Your task to perform on an android device: open app "Speedtest by Ookla" Image 0: 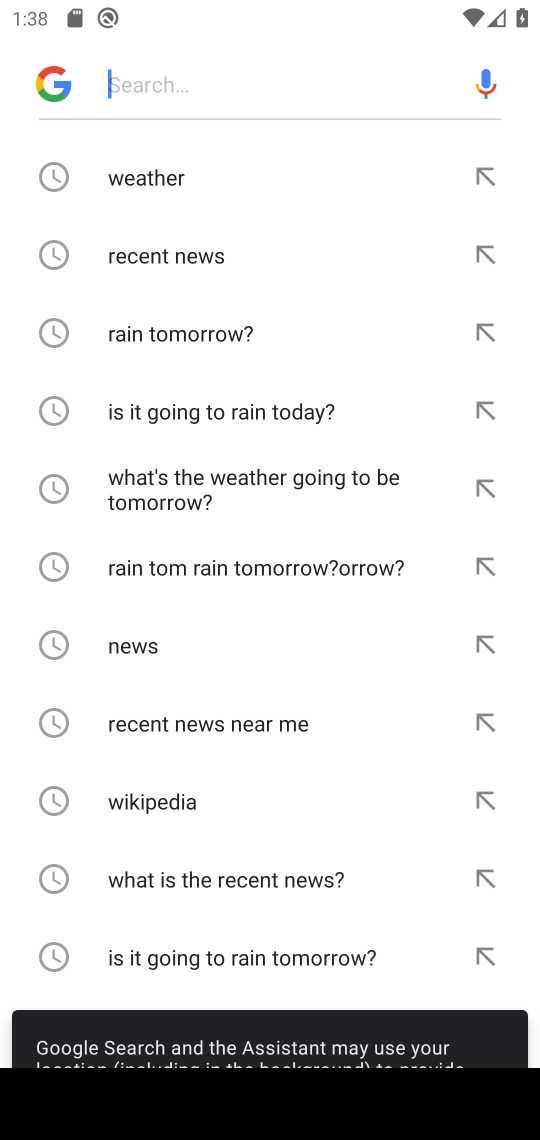
Step 0: press home button
Your task to perform on an android device: open app "Speedtest by Ookla" Image 1: 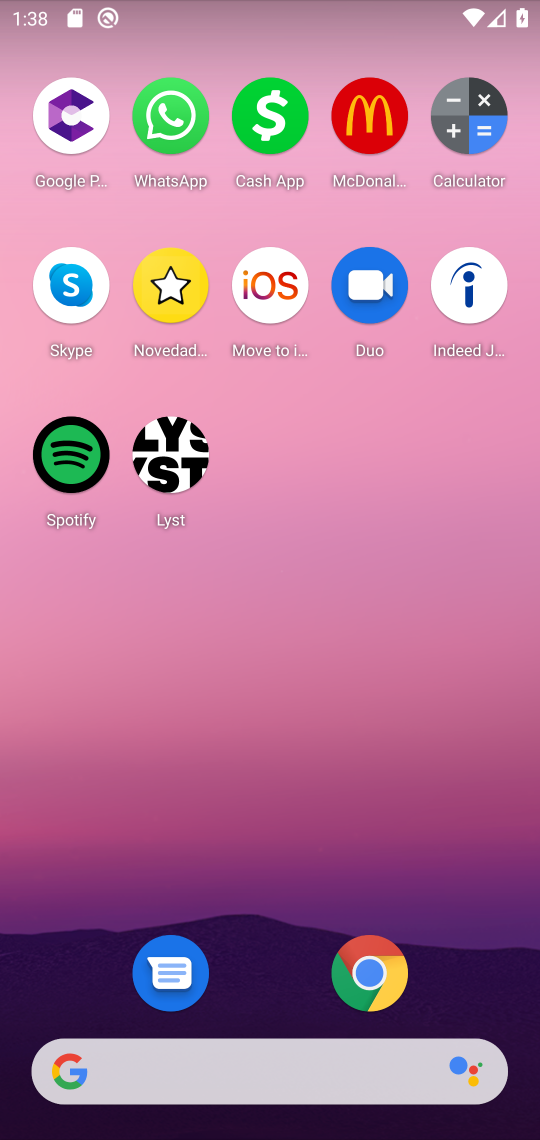
Step 1: drag from (260, 1004) to (236, 260)
Your task to perform on an android device: open app "Speedtest by Ookla" Image 2: 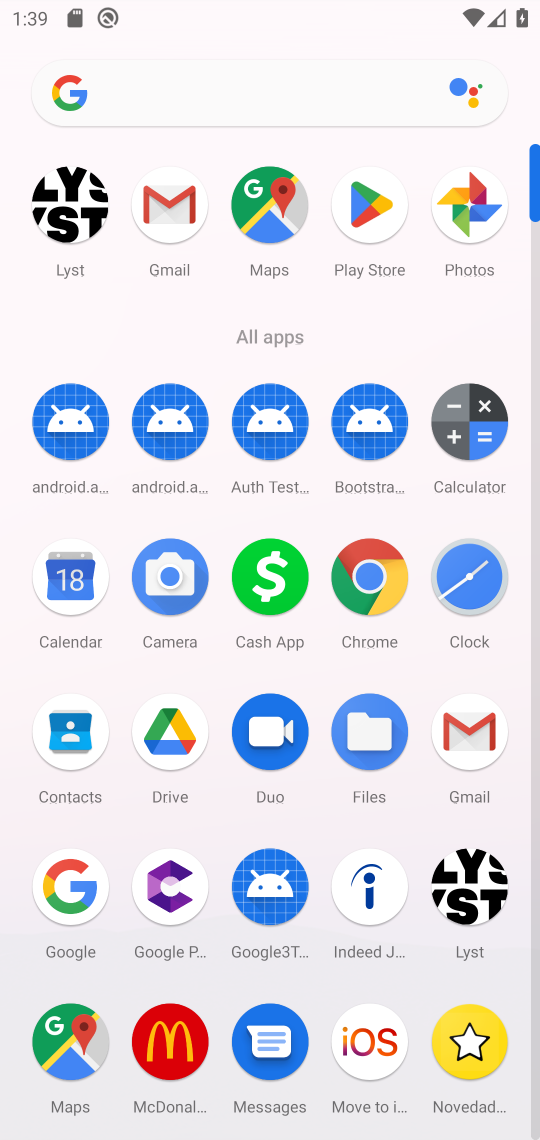
Step 2: click (366, 213)
Your task to perform on an android device: open app "Speedtest by Ookla" Image 3: 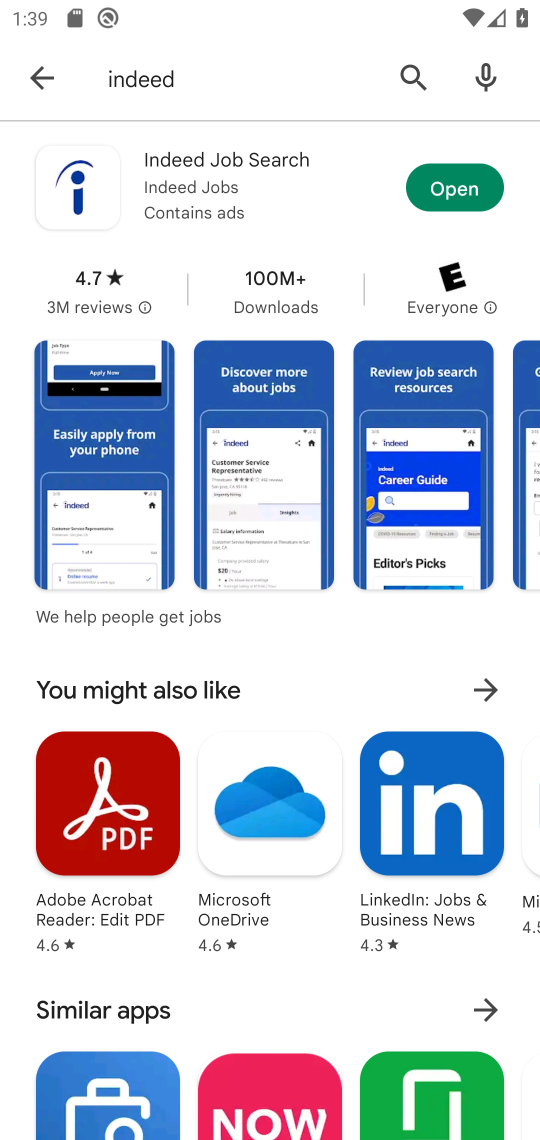
Step 3: click (415, 86)
Your task to perform on an android device: open app "Speedtest by Ookla" Image 4: 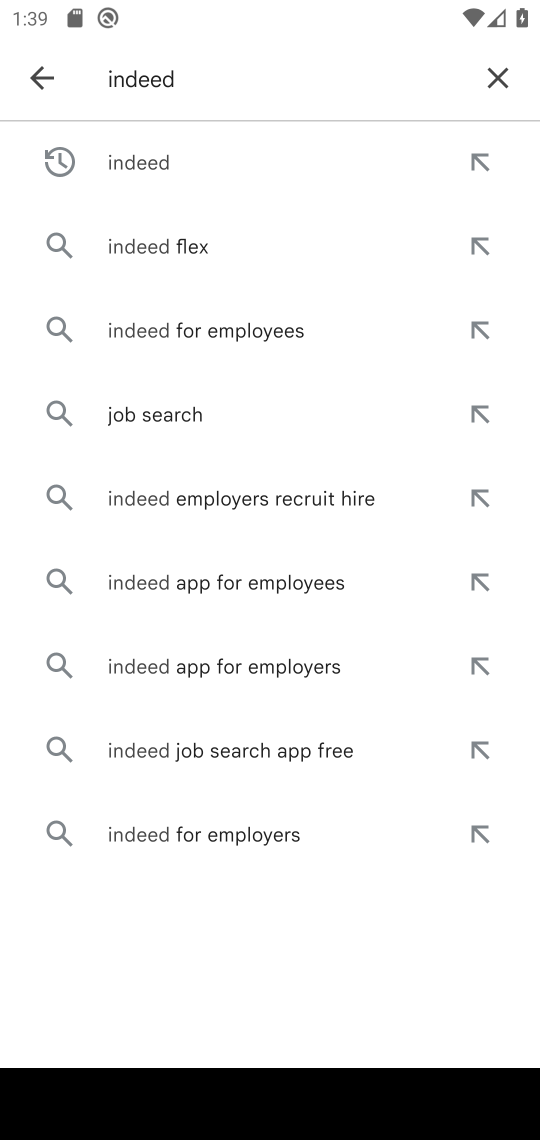
Step 4: click (482, 86)
Your task to perform on an android device: open app "Speedtest by Ookla" Image 5: 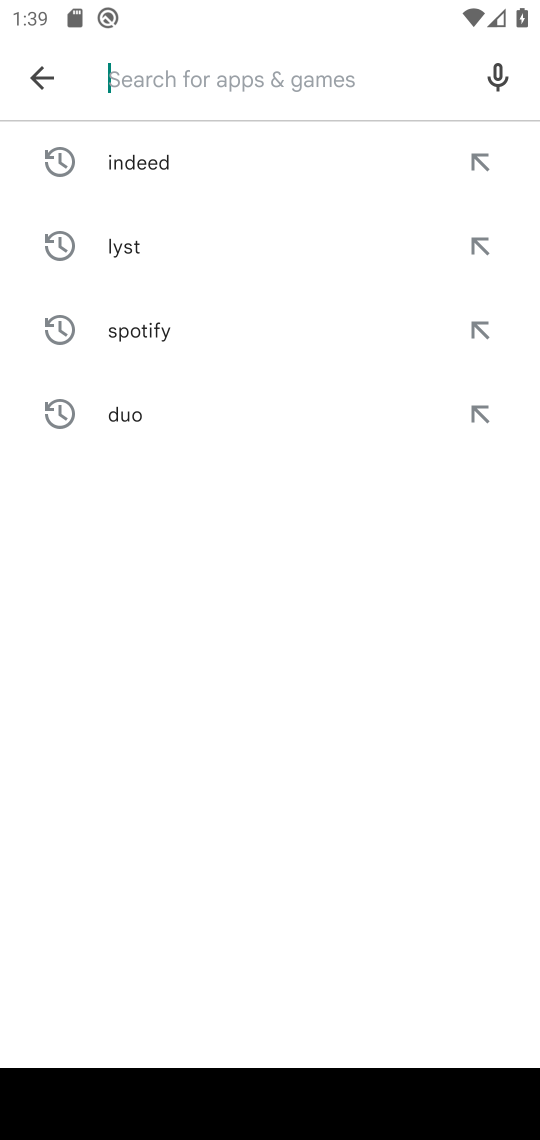
Step 5: type "speedtest"
Your task to perform on an android device: open app "Speedtest by Ookla" Image 6: 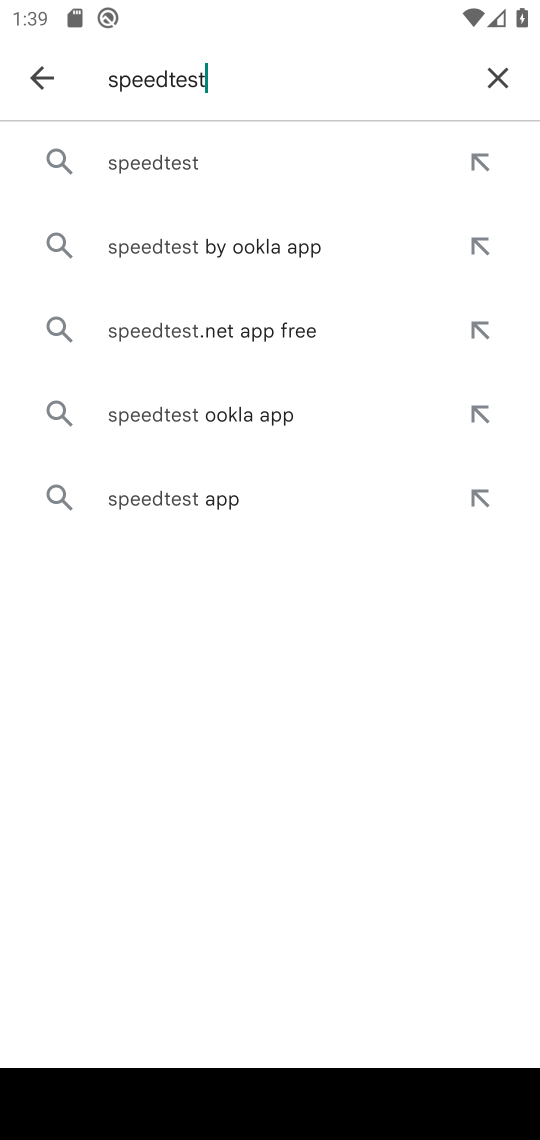
Step 6: click (311, 167)
Your task to perform on an android device: open app "Speedtest by Ookla" Image 7: 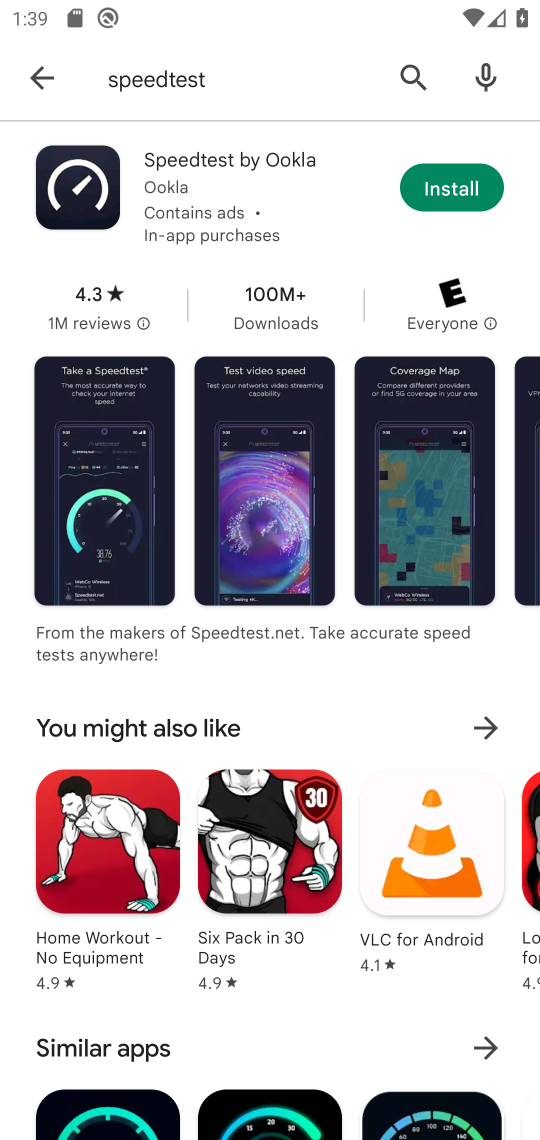
Step 7: click (430, 201)
Your task to perform on an android device: open app "Speedtest by Ookla" Image 8: 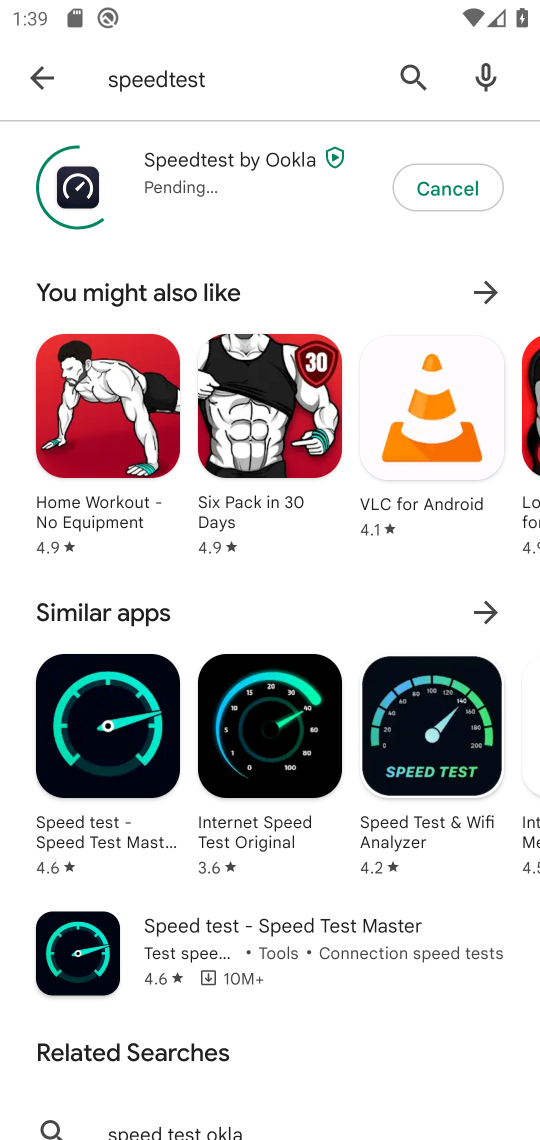
Step 8: task complete